Your task to perform on an android device: snooze an email in the gmail app Image 0: 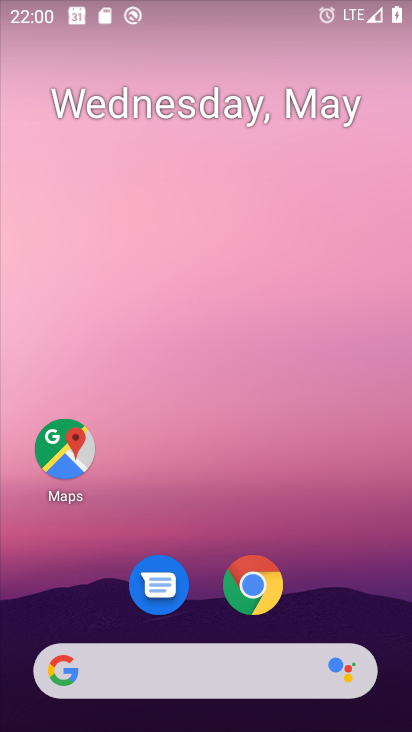
Step 0: drag from (306, 492) to (292, 55)
Your task to perform on an android device: snooze an email in the gmail app Image 1: 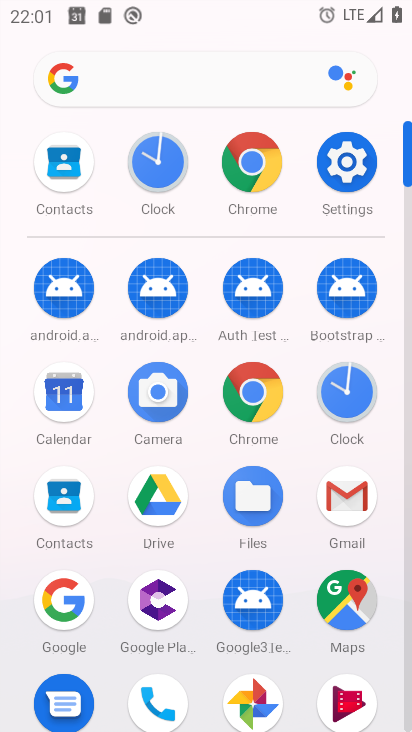
Step 1: click (342, 494)
Your task to perform on an android device: snooze an email in the gmail app Image 2: 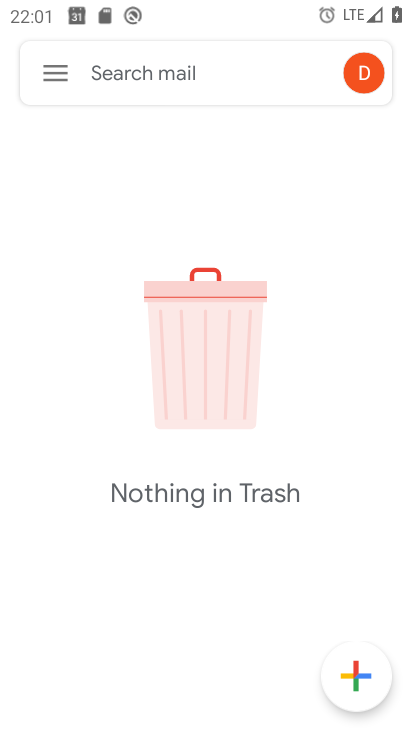
Step 2: click (49, 68)
Your task to perform on an android device: snooze an email in the gmail app Image 3: 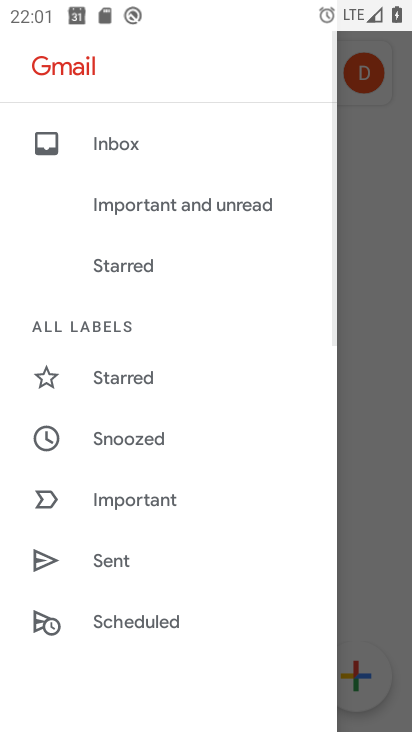
Step 3: drag from (215, 586) to (225, 177)
Your task to perform on an android device: snooze an email in the gmail app Image 4: 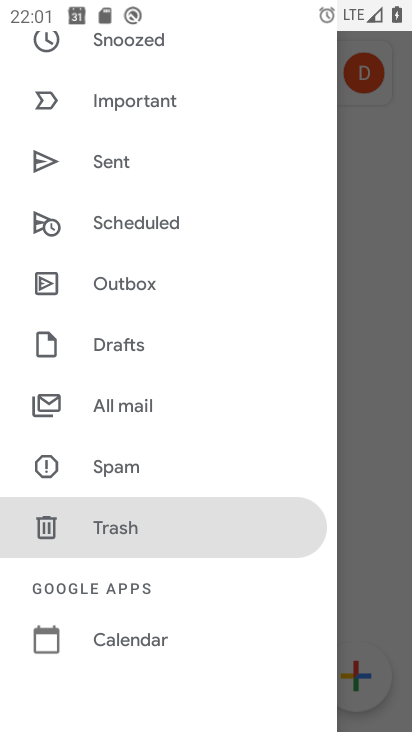
Step 4: click (154, 397)
Your task to perform on an android device: snooze an email in the gmail app Image 5: 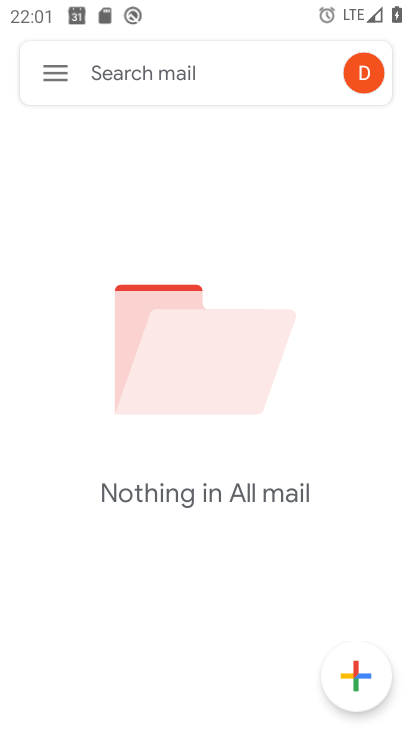
Step 5: task complete